Your task to perform on an android device: Open accessibility settings Image 0: 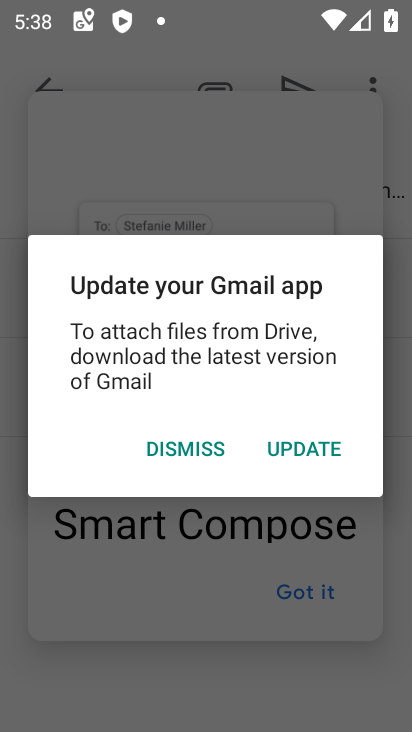
Step 0: press home button
Your task to perform on an android device: Open accessibility settings Image 1: 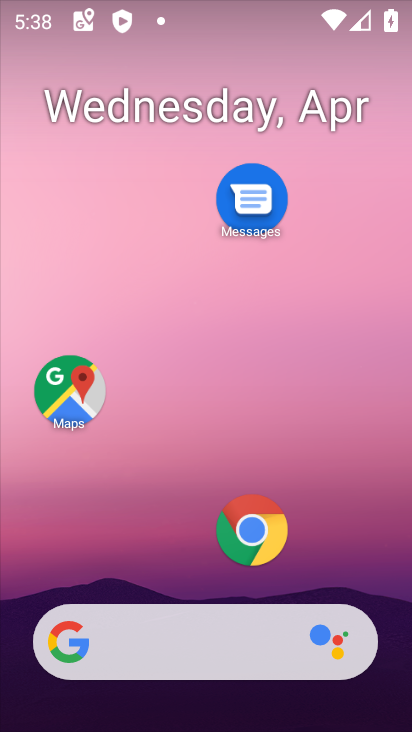
Step 1: drag from (166, 549) to (248, 38)
Your task to perform on an android device: Open accessibility settings Image 2: 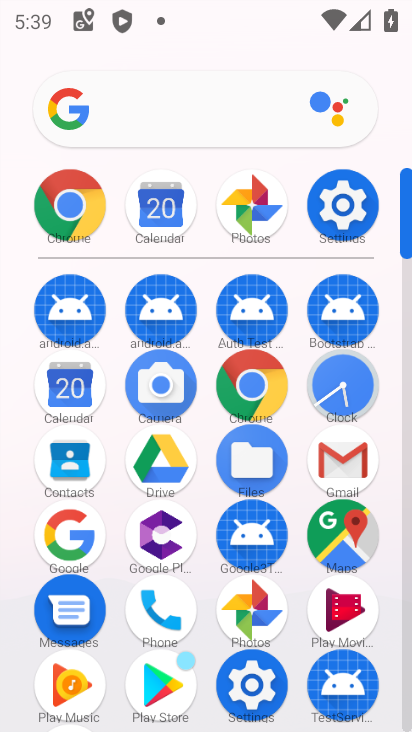
Step 2: click (344, 202)
Your task to perform on an android device: Open accessibility settings Image 3: 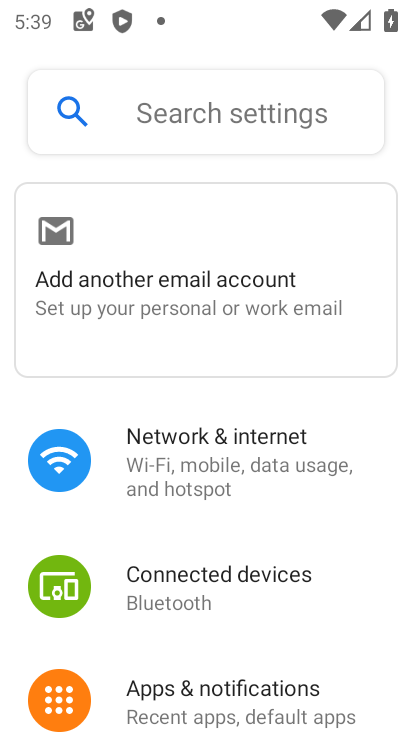
Step 3: drag from (247, 427) to (272, 361)
Your task to perform on an android device: Open accessibility settings Image 4: 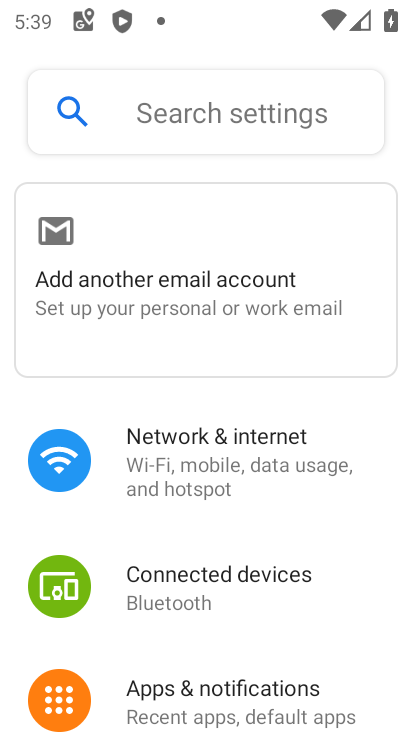
Step 4: click (339, 180)
Your task to perform on an android device: Open accessibility settings Image 5: 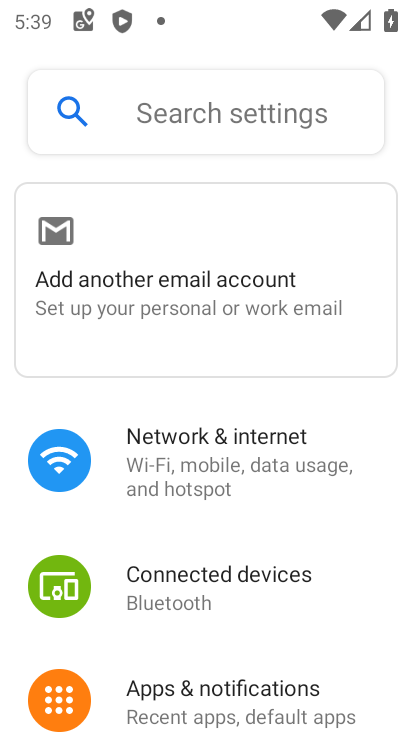
Step 5: drag from (266, 644) to (312, 290)
Your task to perform on an android device: Open accessibility settings Image 6: 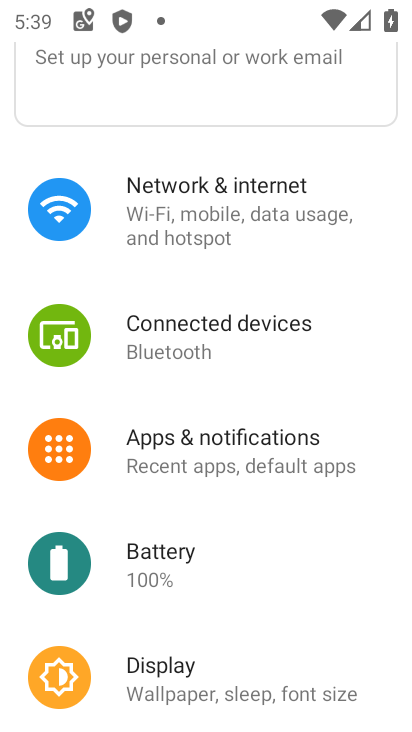
Step 6: drag from (248, 645) to (334, 283)
Your task to perform on an android device: Open accessibility settings Image 7: 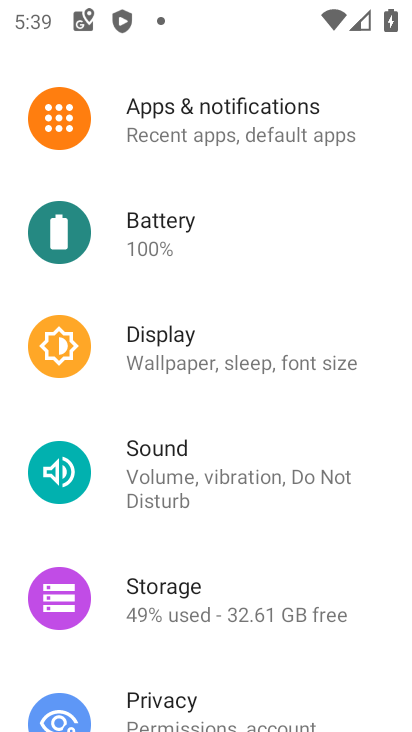
Step 7: drag from (250, 661) to (275, 339)
Your task to perform on an android device: Open accessibility settings Image 8: 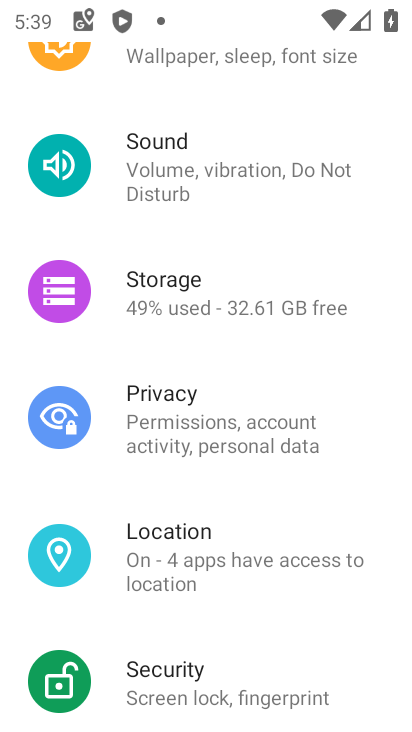
Step 8: drag from (261, 623) to (333, 263)
Your task to perform on an android device: Open accessibility settings Image 9: 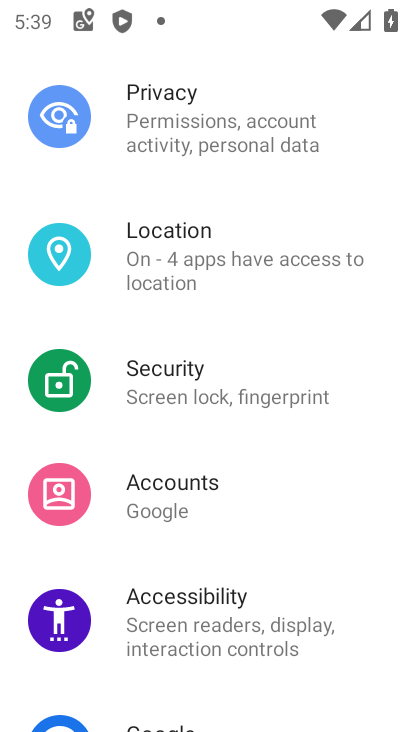
Step 9: click (219, 600)
Your task to perform on an android device: Open accessibility settings Image 10: 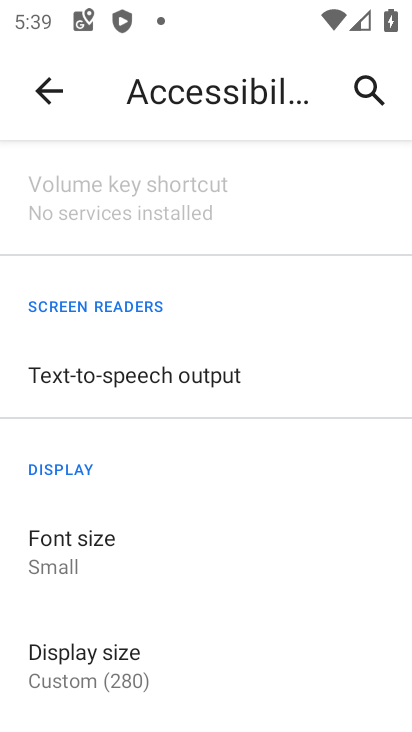
Step 10: task complete